Your task to perform on an android device: turn off improve location accuracy Image 0: 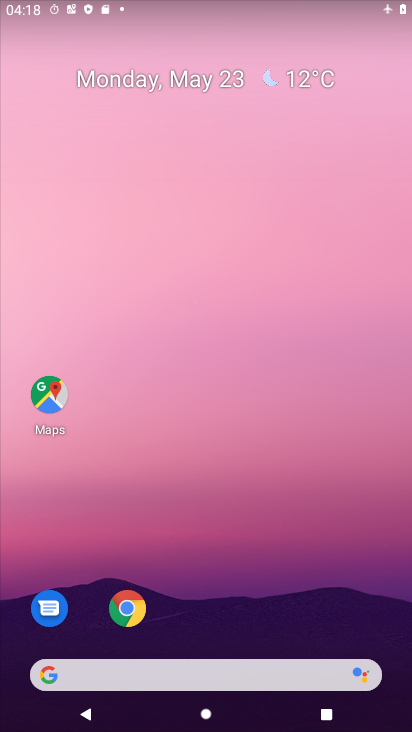
Step 0: drag from (257, 425) to (131, 0)
Your task to perform on an android device: turn off improve location accuracy Image 1: 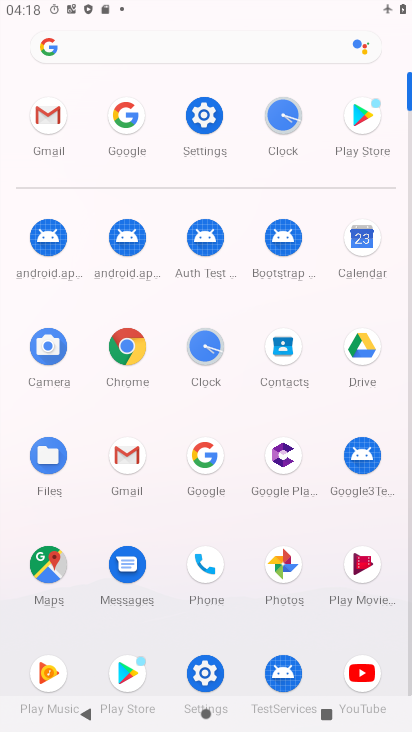
Step 1: click (204, 132)
Your task to perform on an android device: turn off improve location accuracy Image 2: 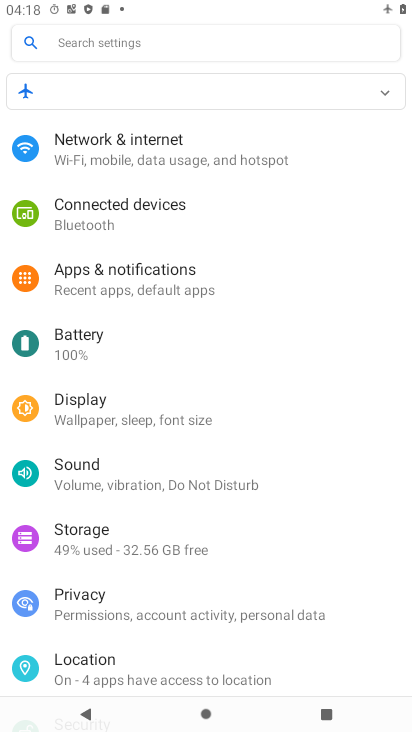
Step 2: drag from (201, 639) to (233, 278)
Your task to perform on an android device: turn off improve location accuracy Image 3: 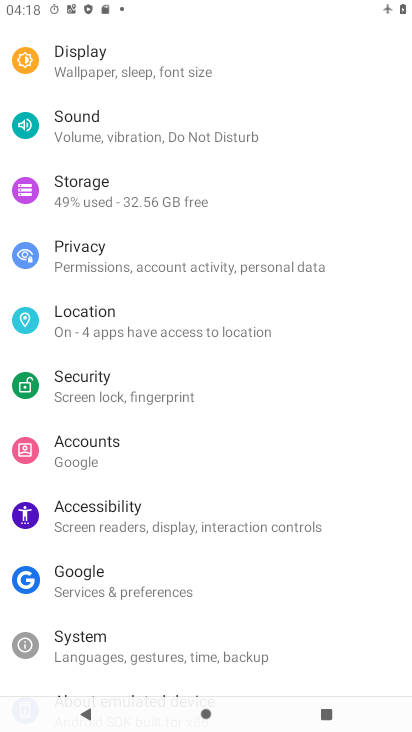
Step 3: click (164, 341)
Your task to perform on an android device: turn off improve location accuracy Image 4: 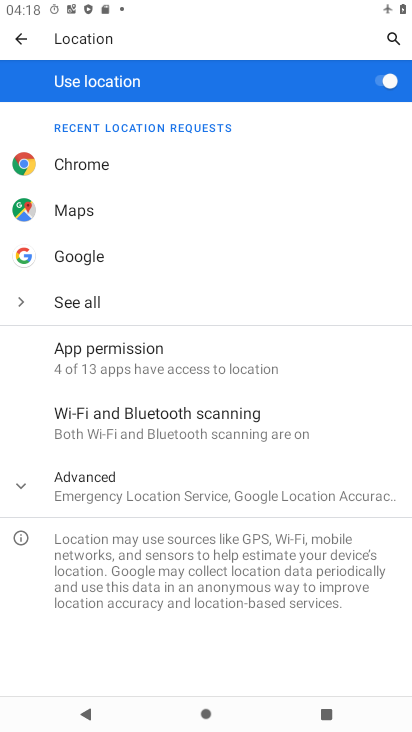
Step 4: click (202, 474)
Your task to perform on an android device: turn off improve location accuracy Image 5: 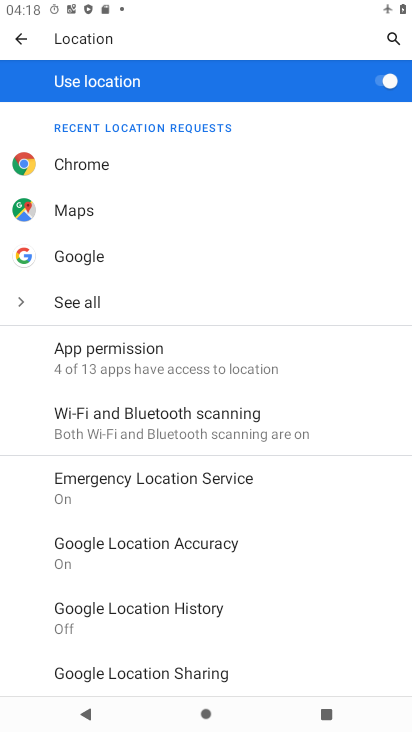
Step 5: click (250, 556)
Your task to perform on an android device: turn off improve location accuracy Image 6: 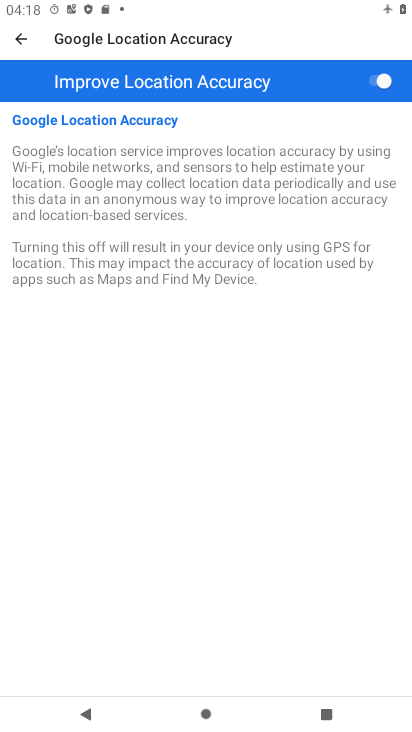
Step 6: click (379, 76)
Your task to perform on an android device: turn off improve location accuracy Image 7: 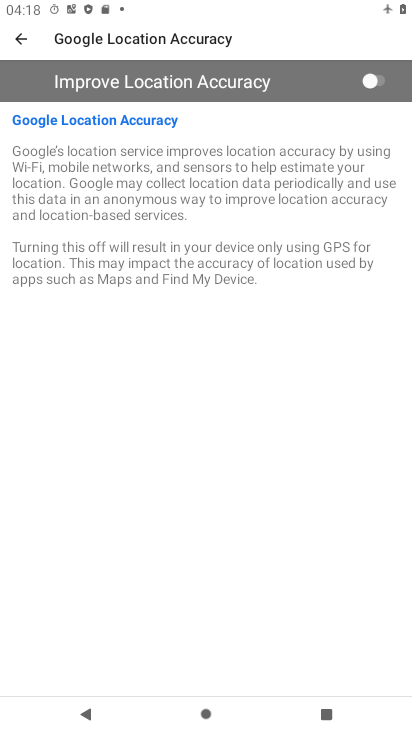
Step 7: task complete